Your task to perform on an android device: turn off airplane mode Image 0: 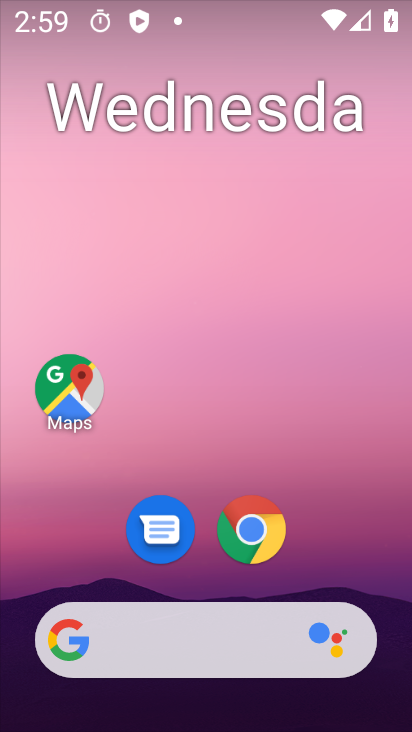
Step 0: drag from (271, 454) to (235, 91)
Your task to perform on an android device: turn off airplane mode Image 1: 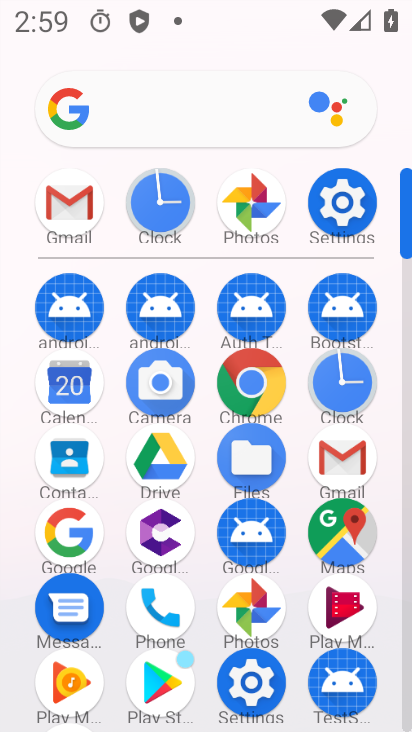
Step 1: click (347, 208)
Your task to perform on an android device: turn off airplane mode Image 2: 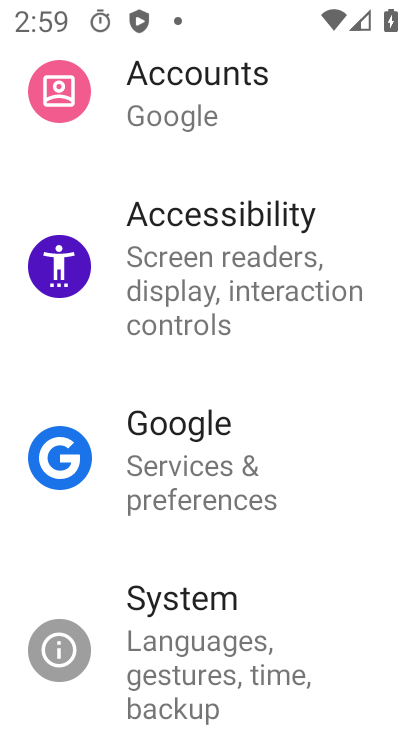
Step 2: drag from (152, 204) to (179, 288)
Your task to perform on an android device: turn off airplane mode Image 3: 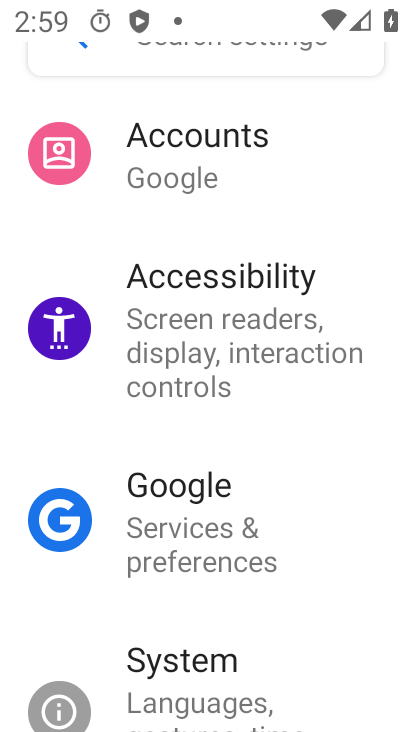
Step 3: drag from (170, 231) to (164, 293)
Your task to perform on an android device: turn off airplane mode Image 4: 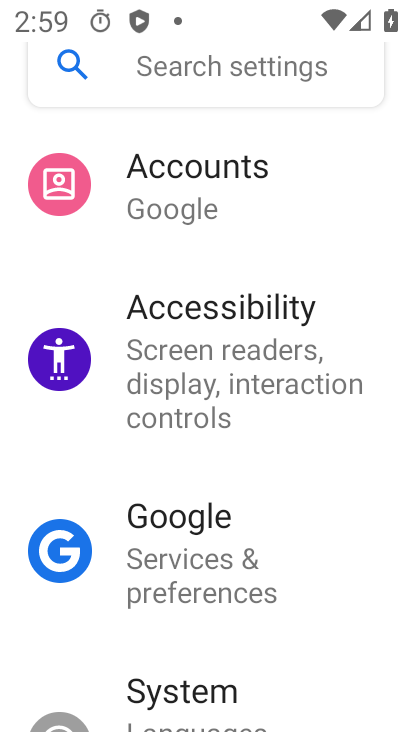
Step 4: drag from (153, 241) to (164, 291)
Your task to perform on an android device: turn off airplane mode Image 5: 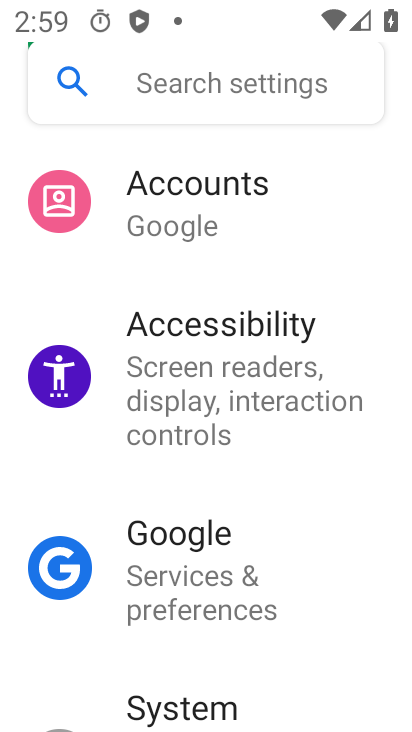
Step 5: drag from (156, 241) to (155, 290)
Your task to perform on an android device: turn off airplane mode Image 6: 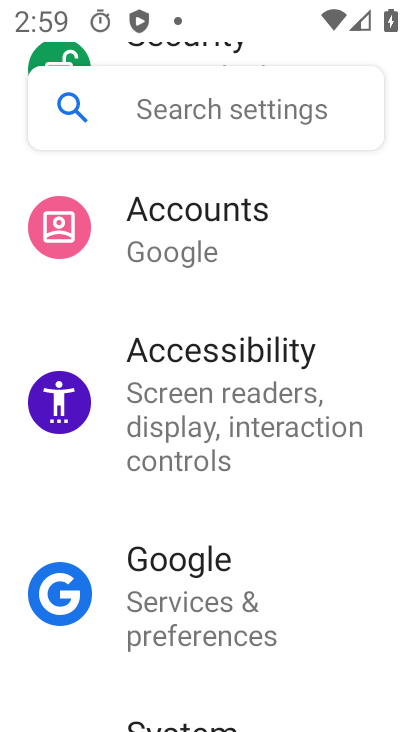
Step 6: drag from (152, 255) to (163, 300)
Your task to perform on an android device: turn off airplane mode Image 7: 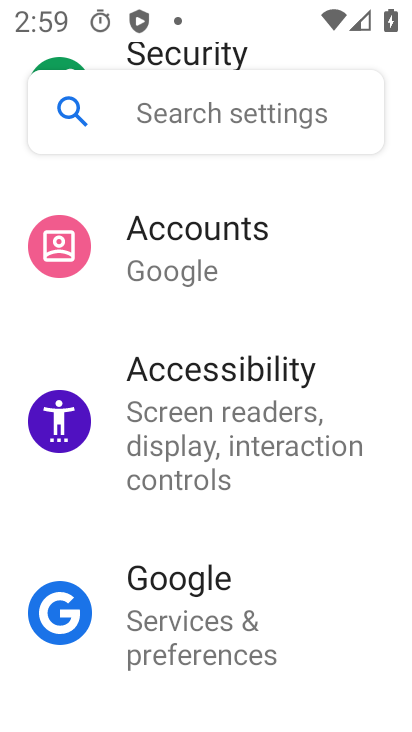
Step 7: drag from (168, 254) to (170, 344)
Your task to perform on an android device: turn off airplane mode Image 8: 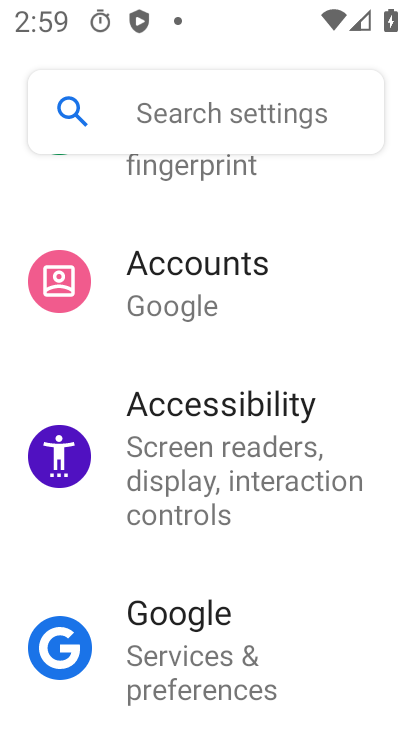
Step 8: drag from (183, 278) to (192, 355)
Your task to perform on an android device: turn off airplane mode Image 9: 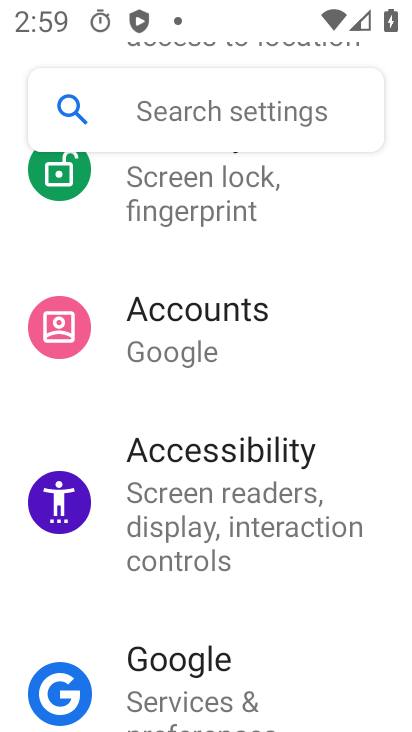
Step 9: drag from (199, 284) to (216, 359)
Your task to perform on an android device: turn off airplane mode Image 10: 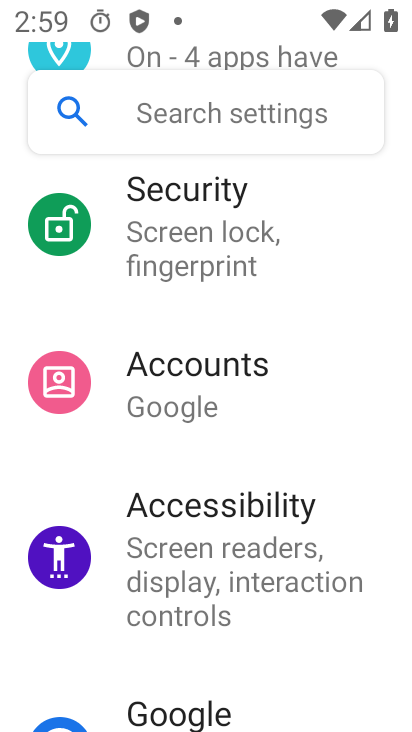
Step 10: drag from (213, 291) to (213, 357)
Your task to perform on an android device: turn off airplane mode Image 11: 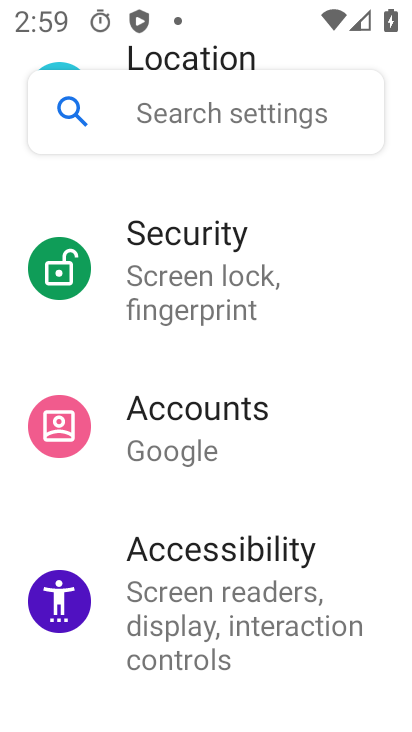
Step 11: drag from (217, 292) to (219, 341)
Your task to perform on an android device: turn off airplane mode Image 12: 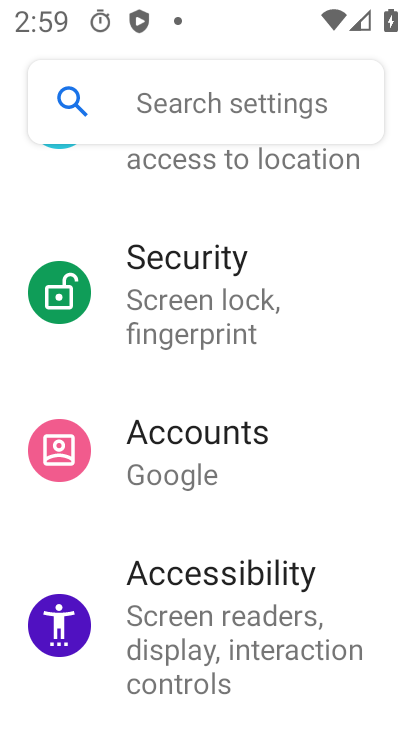
Step 12: drag from (203, 299) to (213, 352)
Your task to perform on an android device: turn off airplane mode Image 13: 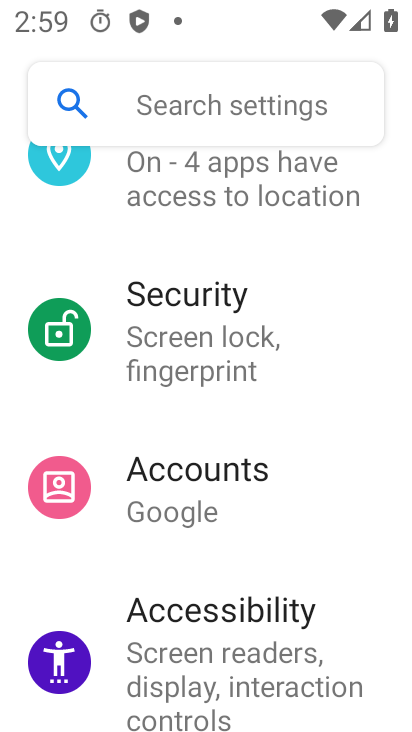
Step 13: drag from (203, 315) to (207, 355)
Your task to perform on an android device: turn off airplane mode Image 14: 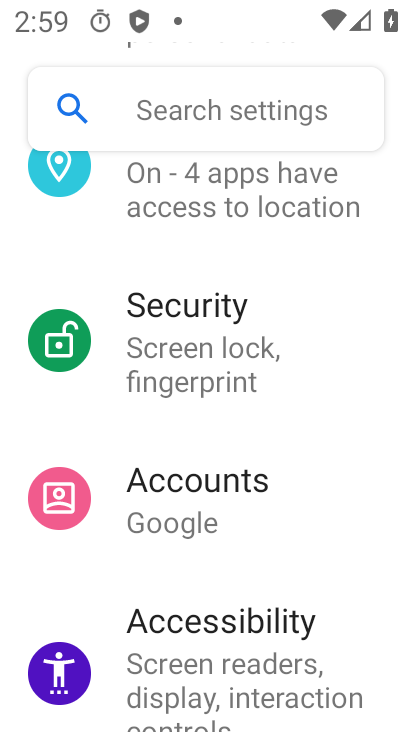
Step 14: drag from (217, 310) to (218, 356)
Your task to perform on an android device: turn off airplane mode Image 15: 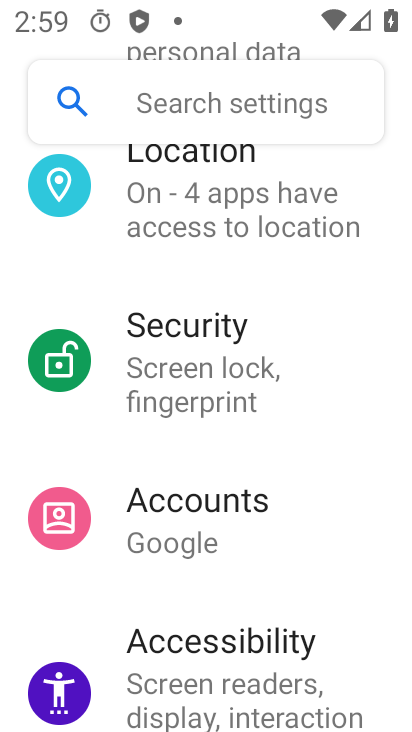
Step 15: drag from (224, 301) to (235, 364)
Your task to perform on an android device: turn off airplane mode Image 16: 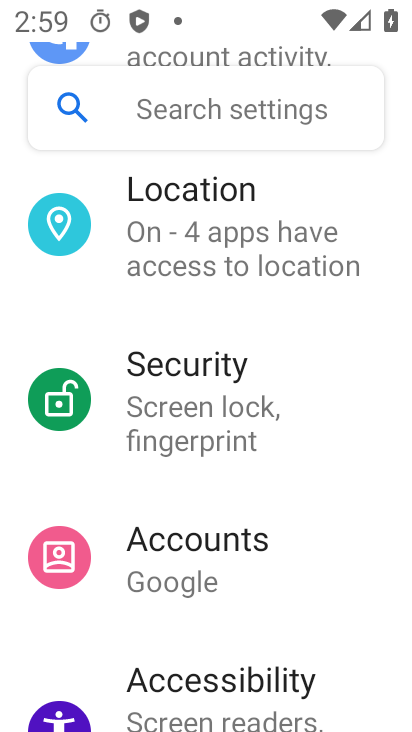
Step 16: drag from (221, 329) to (233, 388)
Your task to perform on an android device: turn off airplane mode Image 17: 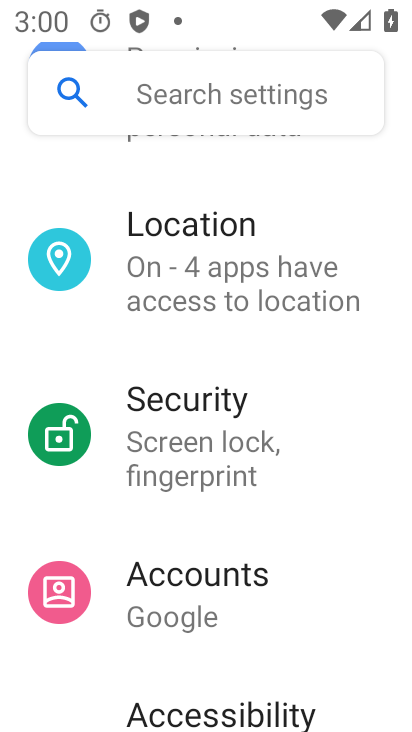
Step 17: drag from (236, 332) to (261, 425)
Your task to perform on an android device: turn off airplane mode Image 18: 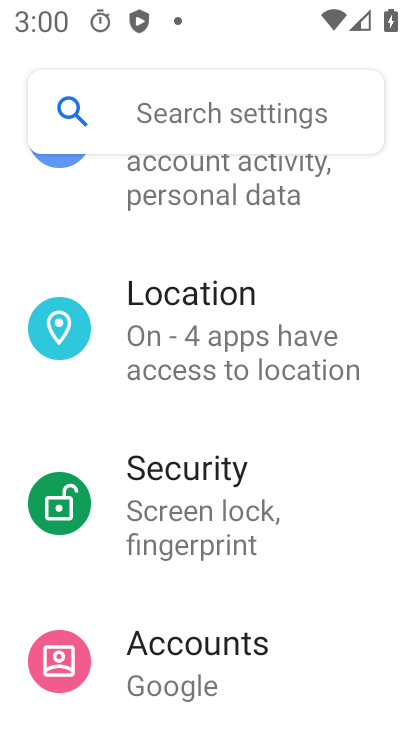
Step 18: drag from (217, 326) to (220, 403)
Your task to perform on an android device: turn off airplane mode Image 19: 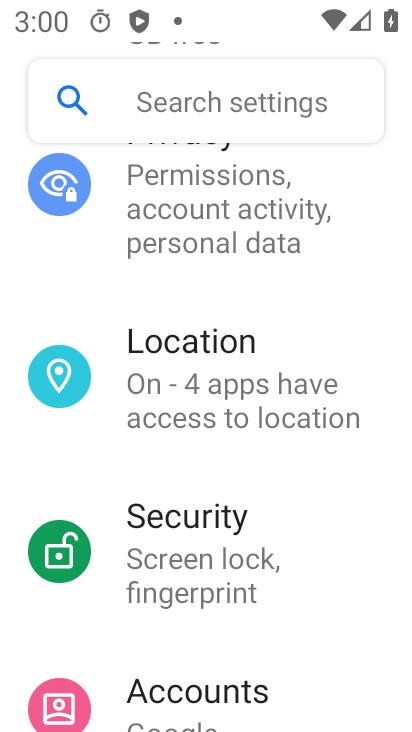
Step 19: drag from (194, 288) to (194, 391)
Your task to perform on an android device: turn off airplane mode Image 20: 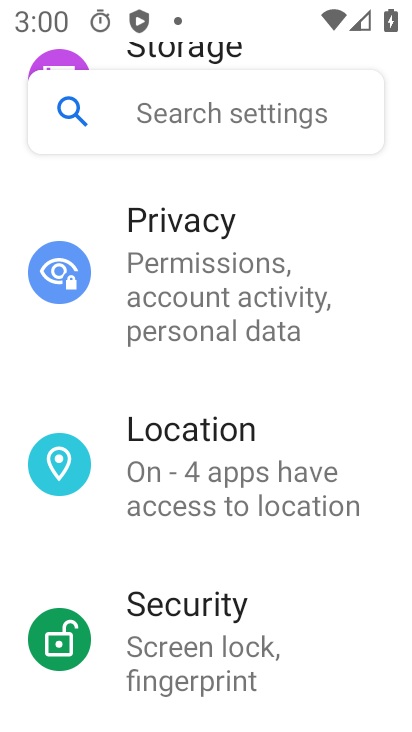
Step 20: drag from (192, 309) to (195, 399)
Your task to perform on an android device: turn off airplane mode Image 21: 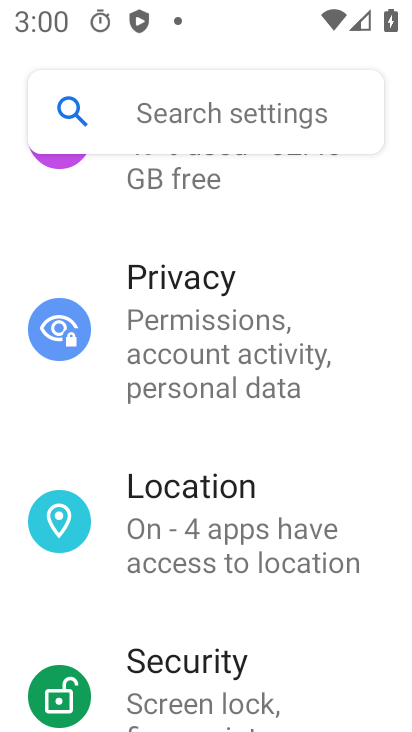
Step 21: click (199, 358)
Your task to perform on an android device: turn off airplane mode Image 22: 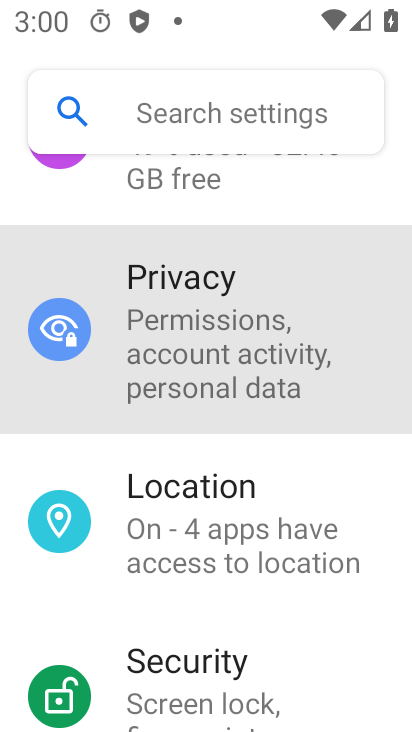
Step 22: drag from (177, 473) to (186, 508)
Your task to perform on an android device: turn off airplane mode Image 23: 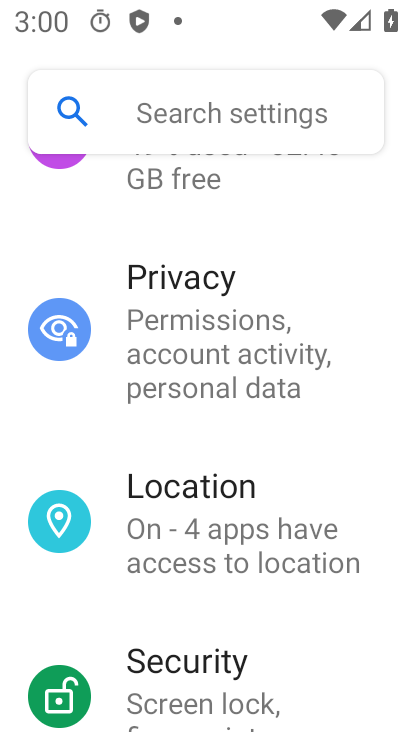
Step 23: drag from (173, 437) to (190, 507)
Your task to perform on an android device: turn off airplane mode Image 24: 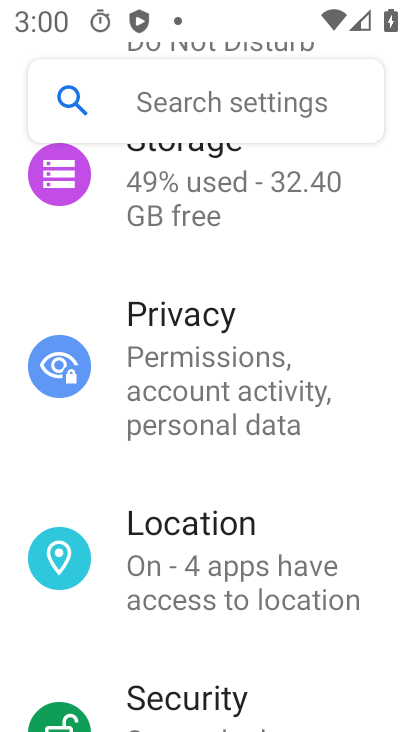
Step 24: drag from (165, 403) to (179, 473)
Your task to perform on an android device: turn off airplane mode Image 25: 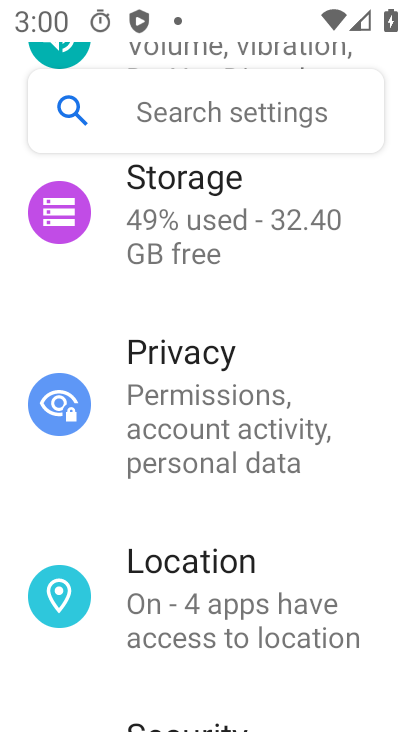
Step 25: drag from (168, 413) to (183, 489)
Your task to perform on an android device: turn off airplane mode Image 26: 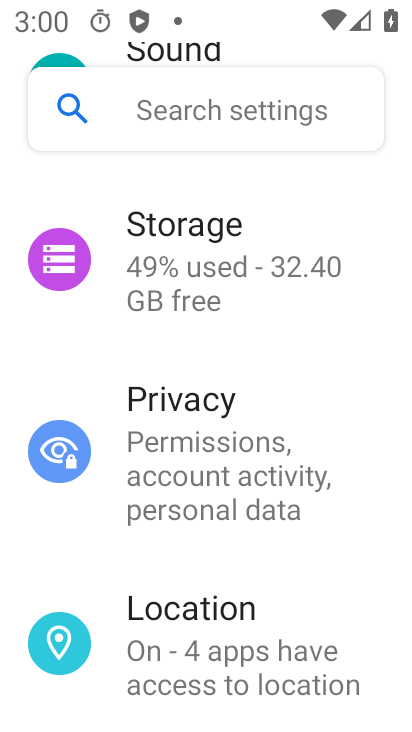
Step 26: drag from (169, 411) to (171, 505)
Your task to perform on an android device: turn off airplane mode Image 27: 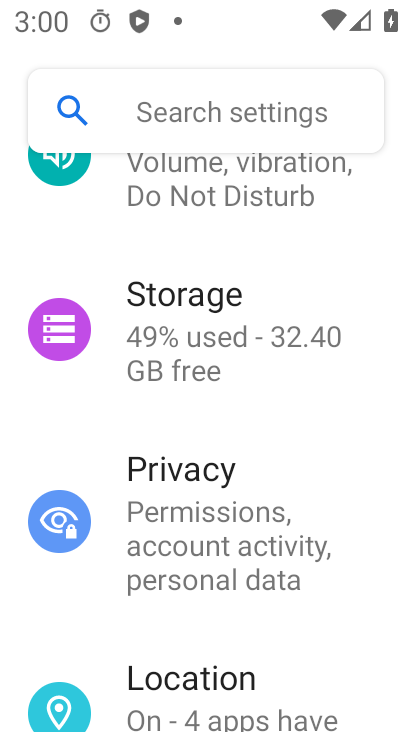
Step 27: drag from (149, 413) to (152, 497)
Your task to perform on an android device: turn off airplane mode Image 28: 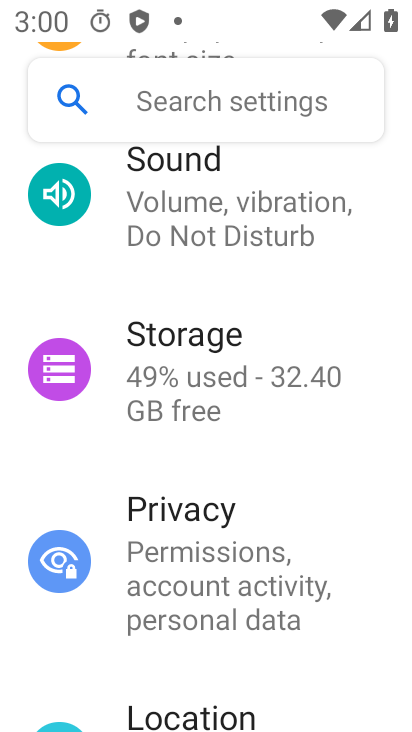
Step 28: drag from (133, 374) to (135, 448)
Your task to perform on an android device: turn off airplane mode Image 29: 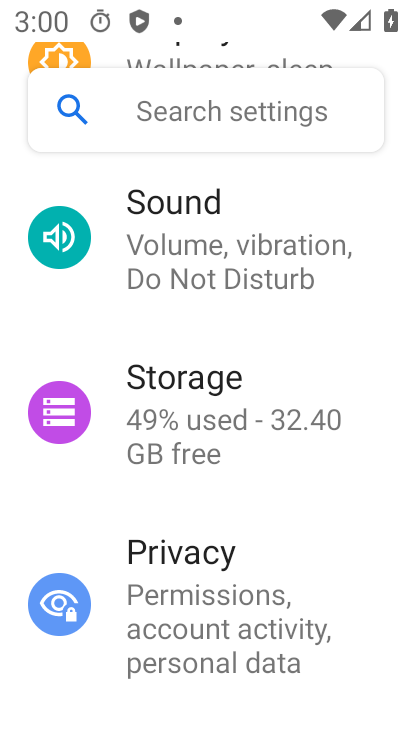
Step 29: drag from (123, 374) to (119, 465)
Your task to perform on an android device: turn off airplane mode Image 30: 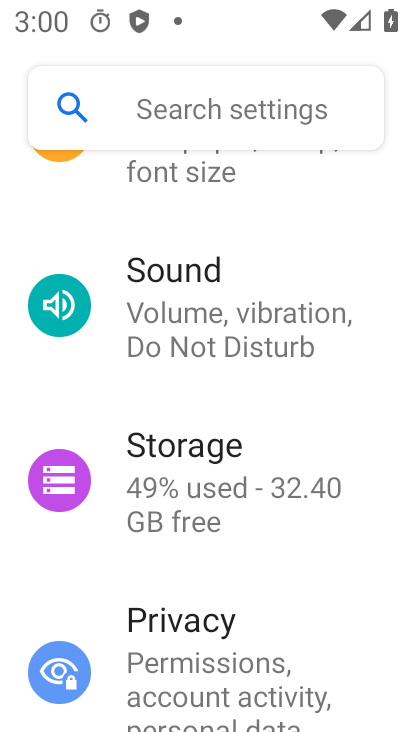
Step 30: drag from (121, 347) to (122, 439)
Your task to perform on an android device: turn off airplane mode Image 31: 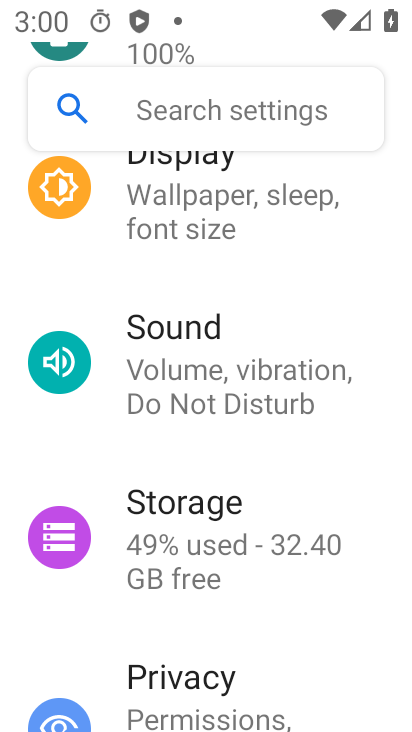
Step 31: drag from (131, 374) to (136, 445)
Your task to perform on an android device: turn off airplane mode Image 32: 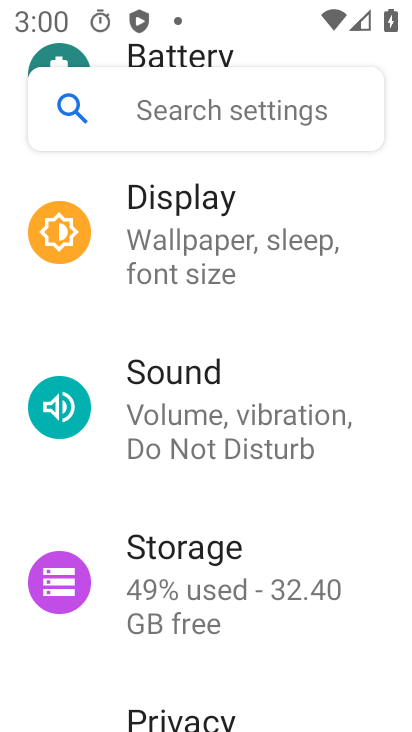
Step 32: drag from (126, 336) to (135, 468)
Your task to perform on an android device: turn off airplane mode Image 33: 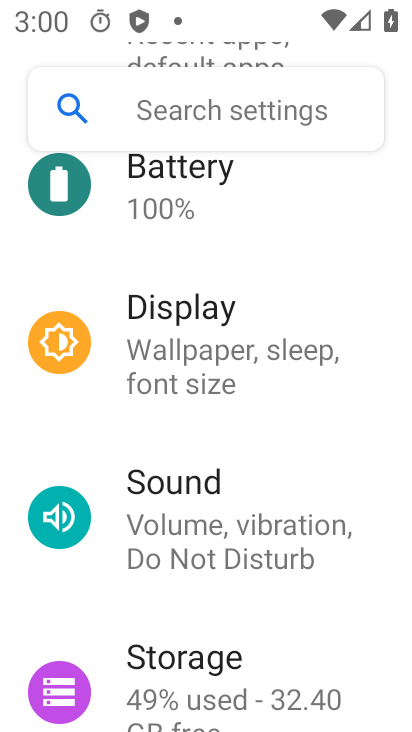
Step 33: drag from (140, 372) to (148, 475)
Your task to perform on an android device: turn off airplane mode Image 34: 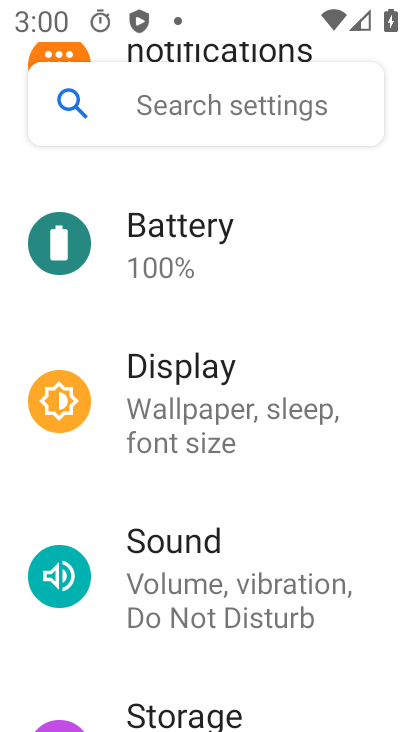
Step 34: drag from (111, 335) to (157, 441)
Your task to perform on an android device: turn off airplane mode Image 35: 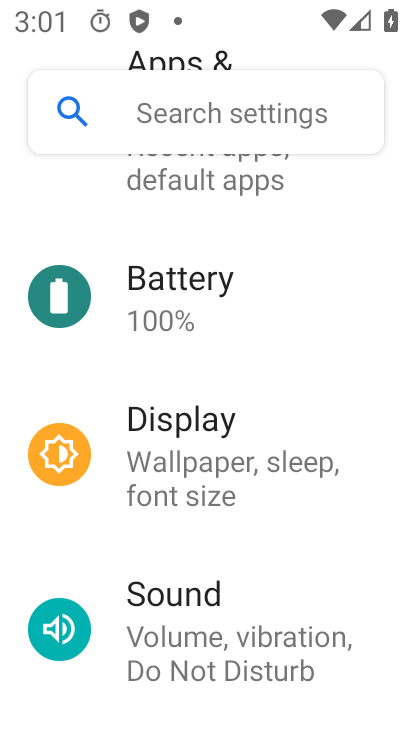
Step 35: drag from (179, 318) to (204, 452)
Your task to perform on an android device: turn off airplane mode Image 36: 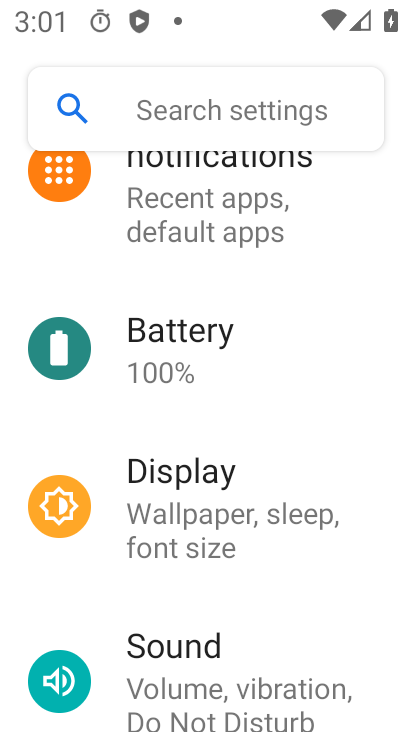
Step 36: drag from (204, 345) to (204, 469)
Your task to perform on an android device: turn off airplane mode Image 37: 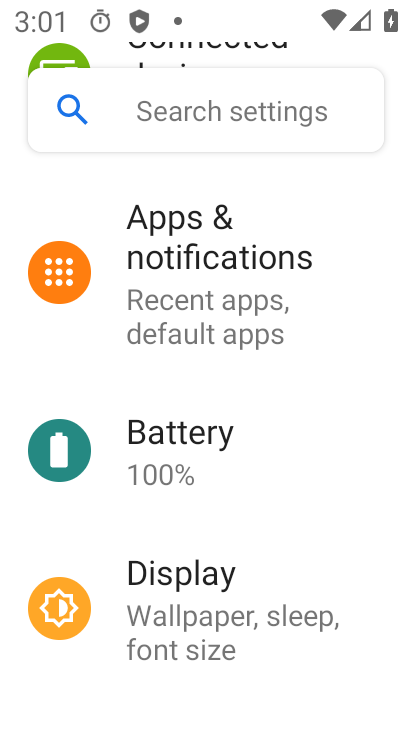
Step 37: drag from (238, 235) to (237, 359)
Your task to perform on an android device: turn off airplane mode Image 38: 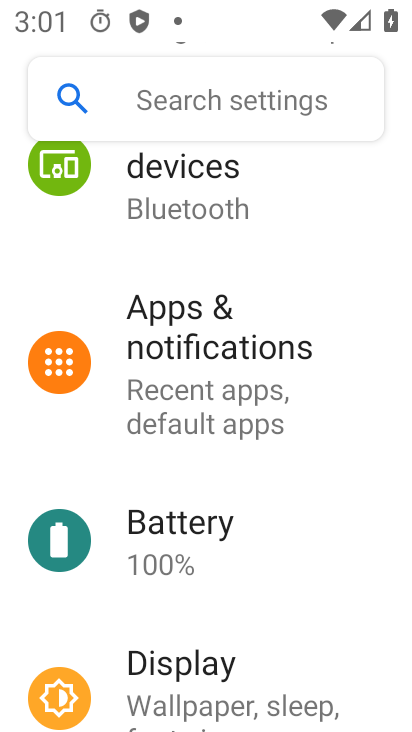
Step 38: drag from (216, 287) to (239, 436)
Your task to perform on an android device: turn off airplane mode Image 39: 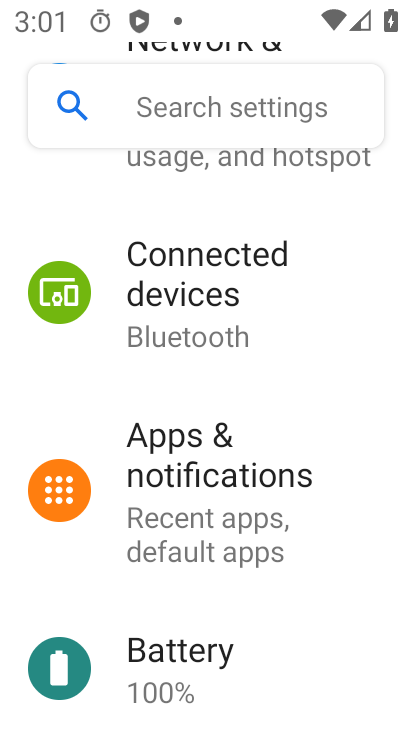
Step 39: drag from (220, 342) to (241, 437)
Your task to perform on an android device: turn off airplane mode Image 40: 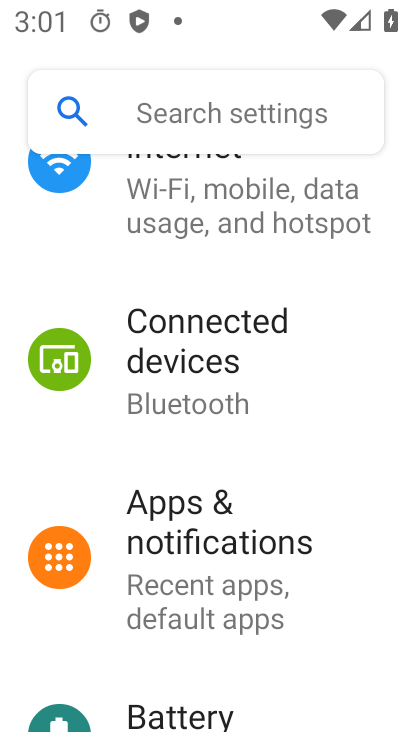
Step 40: drag from (214, 333) to (239, 456)
Your task to perform on an android device: turn off airplane mode Image 41: 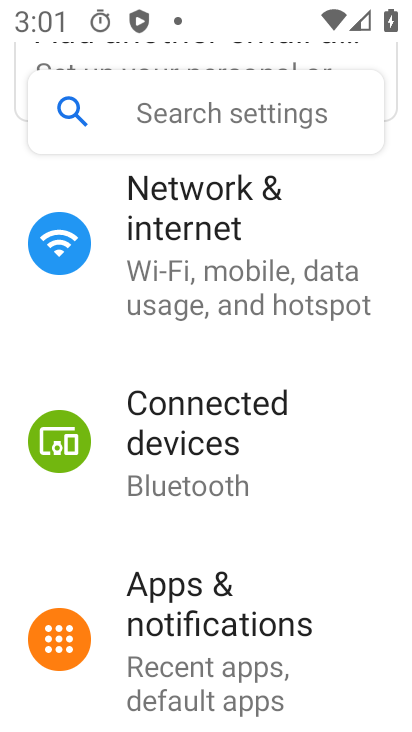
Step 41: click (265, 274)
Your task to perform on an android device: turn off airplane mode Image 42: 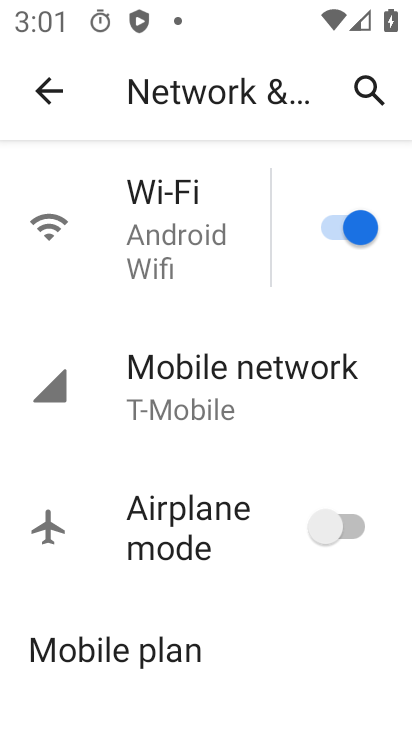
Step 42: task complete